Your task to perform on an android device: What's the weather? Image 0: 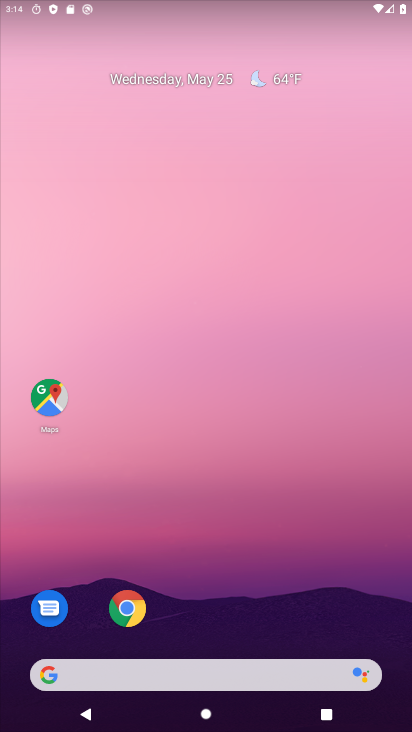
Step 0: drag from (249, 492) to (276, 57)
Your task to perform on an android device: What's the weather? Image 1: 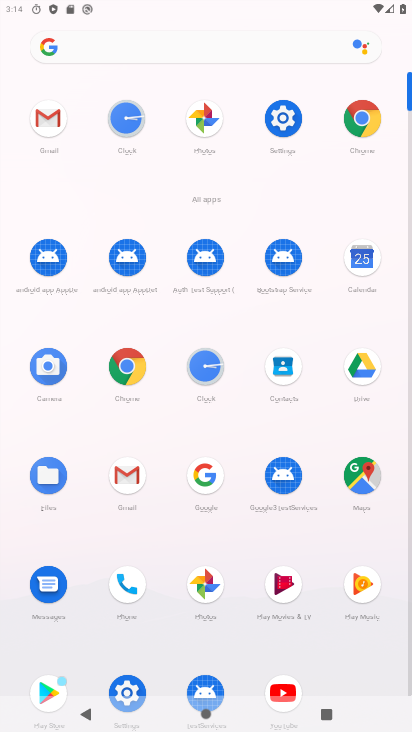
Step 1: click (119, 366)
Your task to perform on an android device: What's the weather? Image 2: 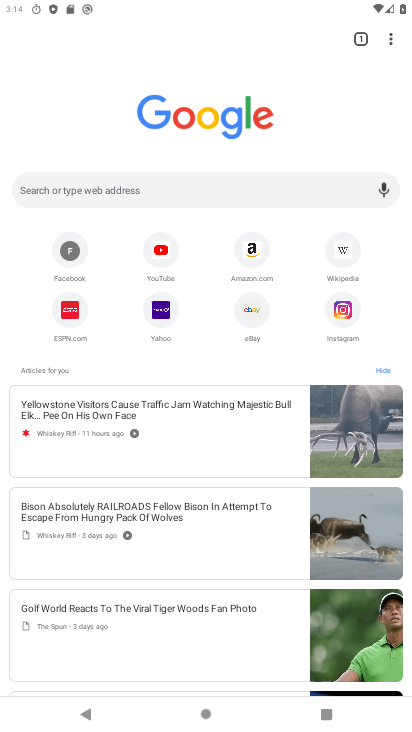
Step 2: click (137, 194)
Your task to perform on an android device: What's the weather? Image 3: 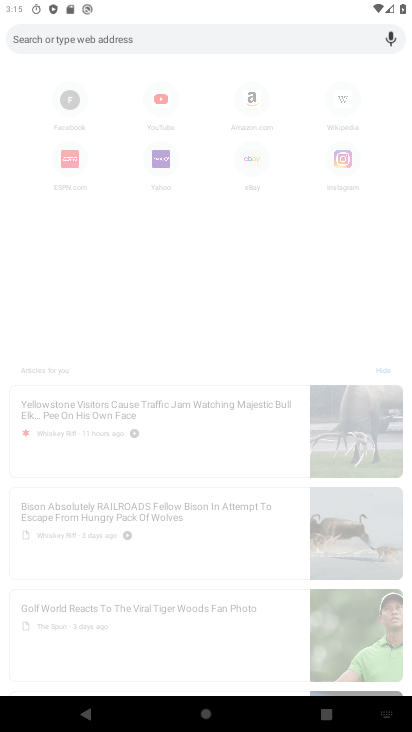
Step 3: type "weather"
Your task to perform on an android device: What's the weather? Image 4: 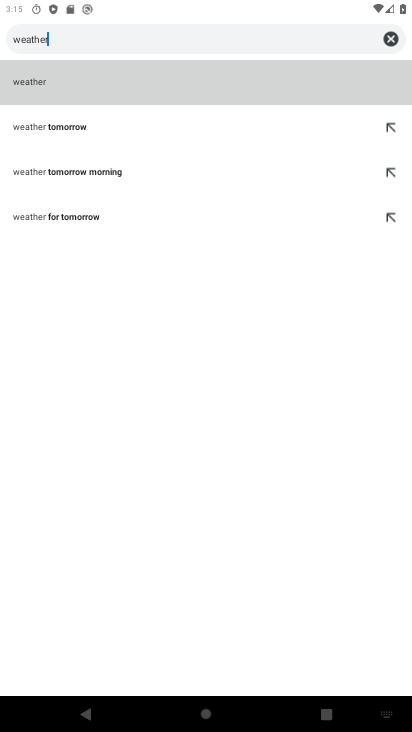
Step 4: click (42, 77)
Your task to perform on an android device: What's the weather? Image 5: 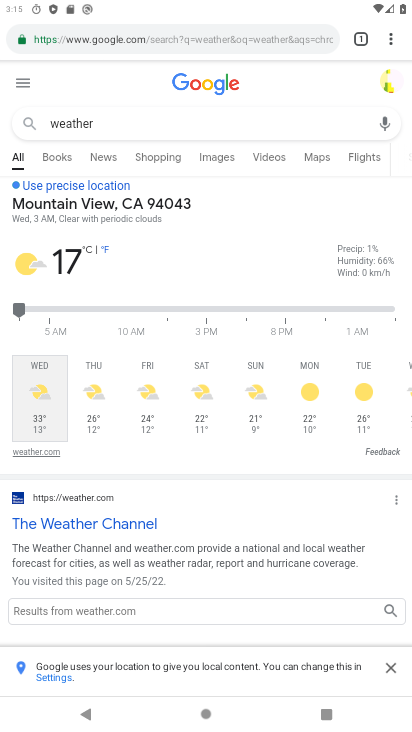
Step 5: task complete